Your task to perform on an android device: toggle notifications settings in the gmail app Image 0: 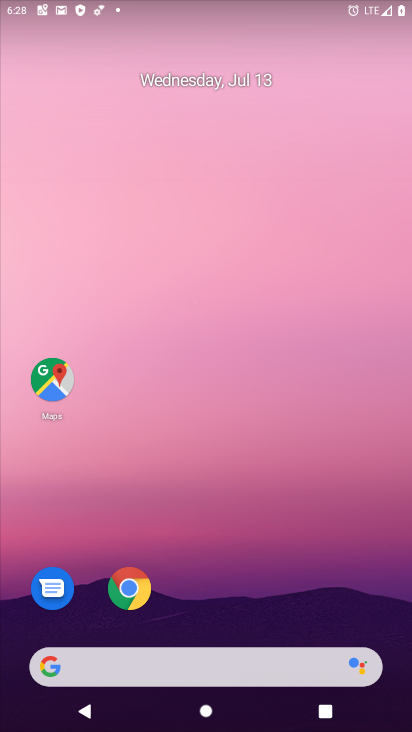
Step 0: press home button
Your task to perform on an android device: toggle notifications settings in the gmail app Image 1: 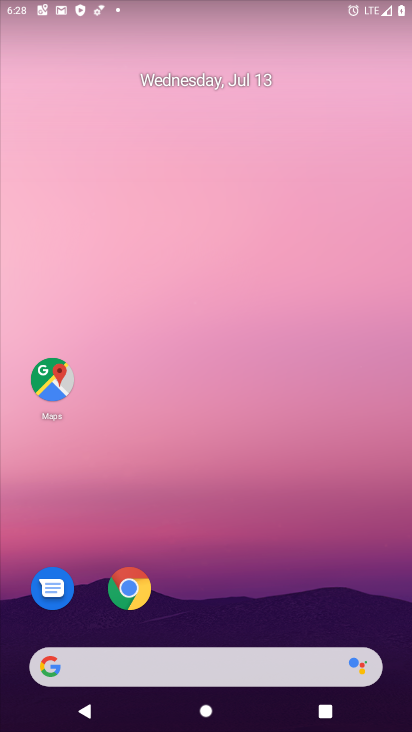
Step 1: drag from (245, 598) to (187, 114)
Your task to perform on an android device: toggle notifications settings in the gmail app Image 2: 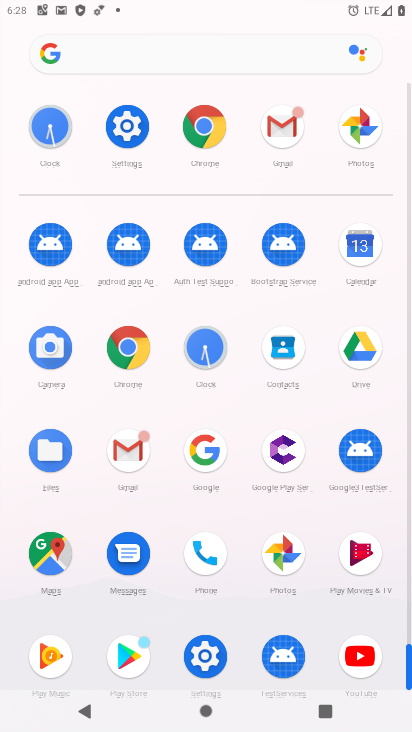
Step 2: click (127, 128)
Your task to perform on an android device: toggle notifications settings in the gmail app Image 3: 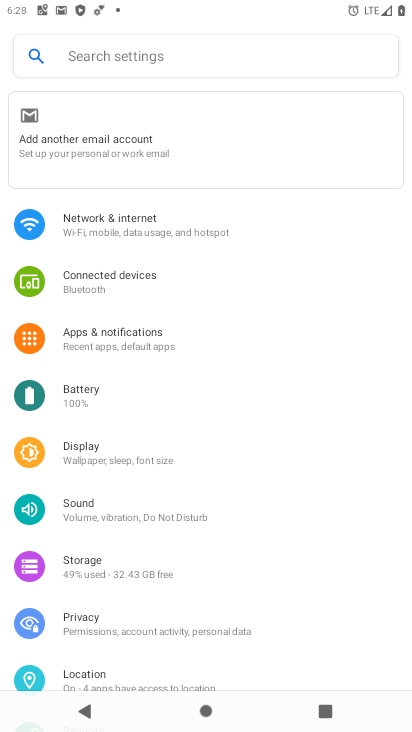
Step 3: press back button
Your task to perform on an android device: toggle notifications settings in the gmail app Image 4: 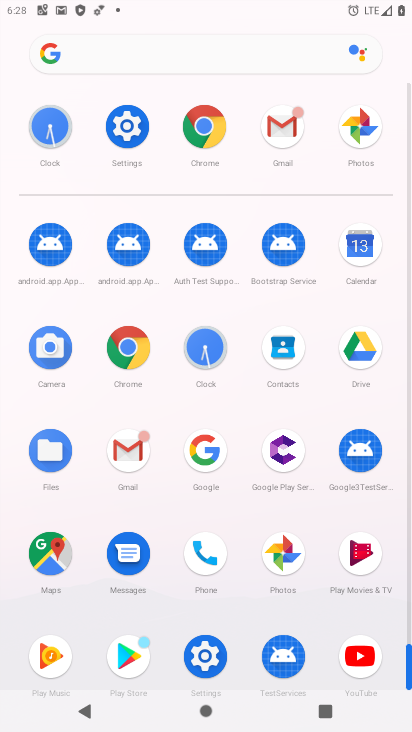
Step 4: click (278, 131)
Your task to perform on an android device: toggle notifications settings in the gmail app Image 5: 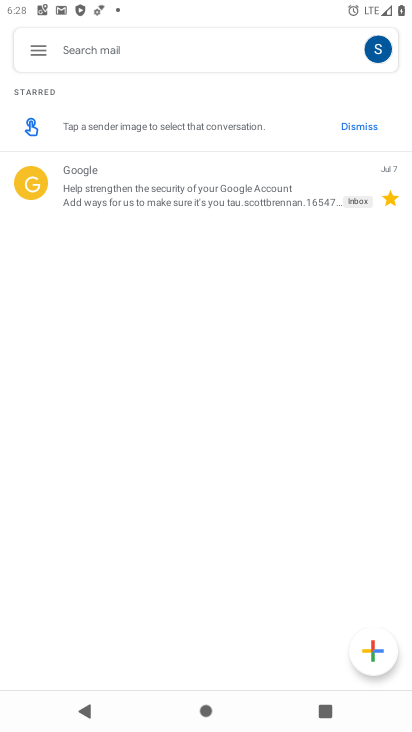
Step 5: click (31, 44)
Your task to perform on an android device: toggle notifications settings in the gmail app Image 6: 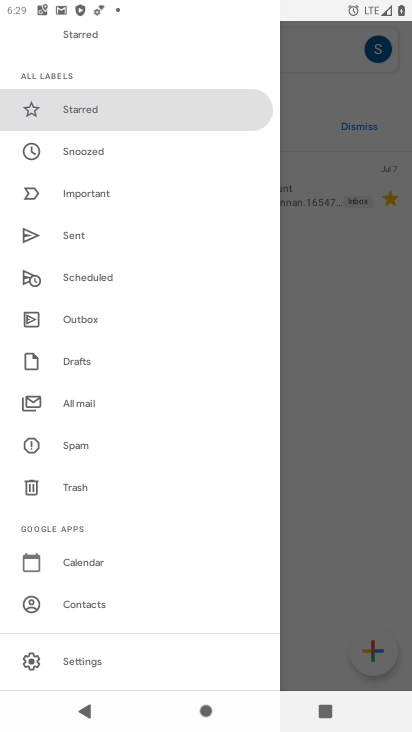
Step 6: click (71, 658)
Your task to perform on an android device: toggle notifications settings in the gmail app Image 7: 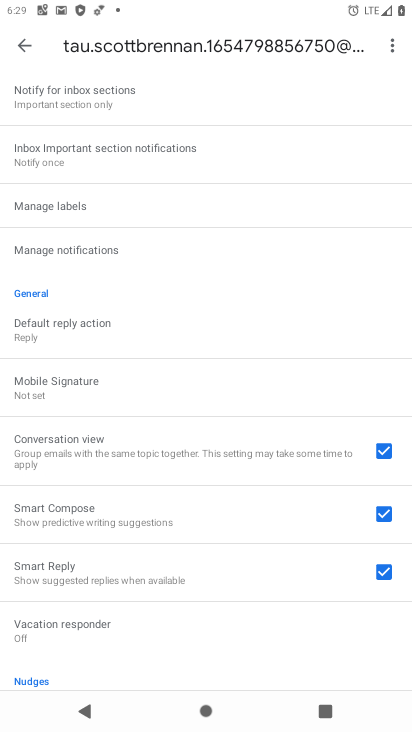
Step 7: drag from (106, 544) to (175, 77)
Your task to perform on an android device: toggle notifications settings in the gmail app Image 8: 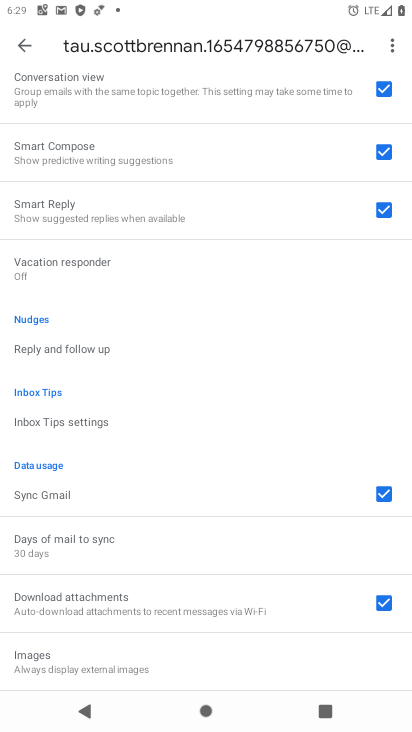
Step 8: drag from (130, 476) to (133, 609)
Your task to perform on an android device: toggle notifications settings in the gmail app Image 9: 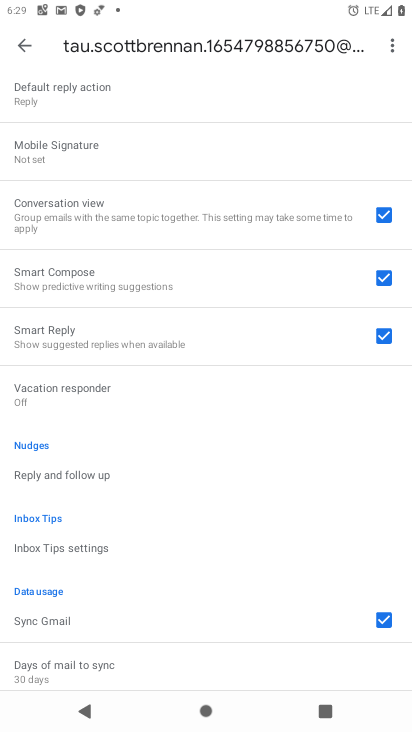
Step 9: drag from (196, 223) to (235, 494)
Your task to perform on an android device: toggle notifications settings in the gmail app Image 10: 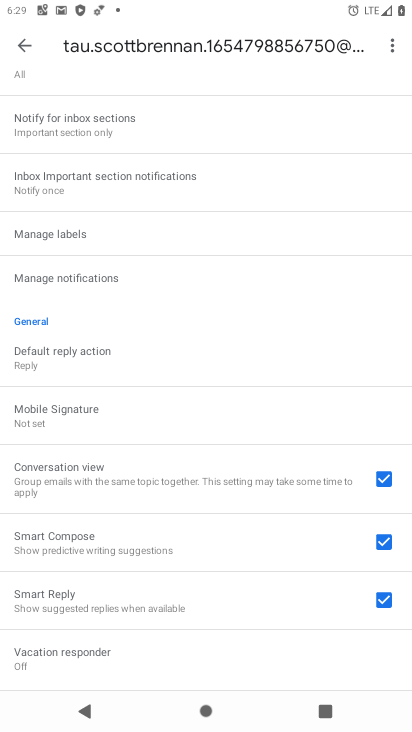
Step 10: click (81, 279)
Your task to perform on an android device: toggle notifications settings in the gmail app Image 11: 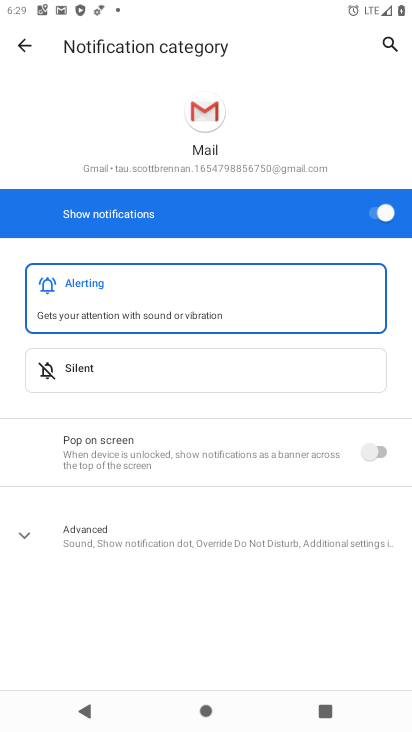
Step 11: click (373, 217)
Your task to perform on an android device: toggle notifications settings in the gmail app Image 12: 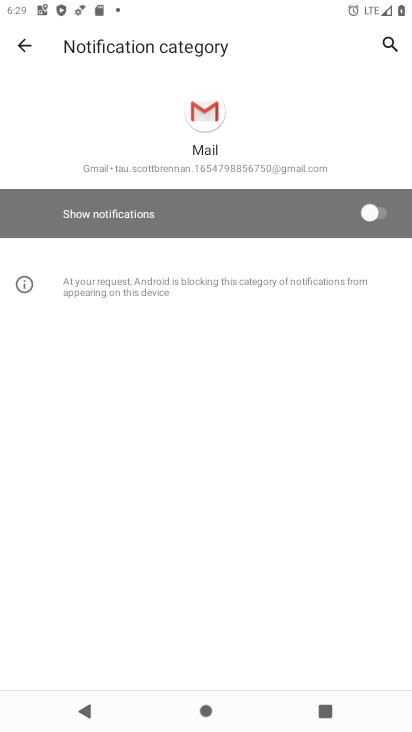
Step 12: task complete